Your task to perform on an android device: set an alarm Image 0: 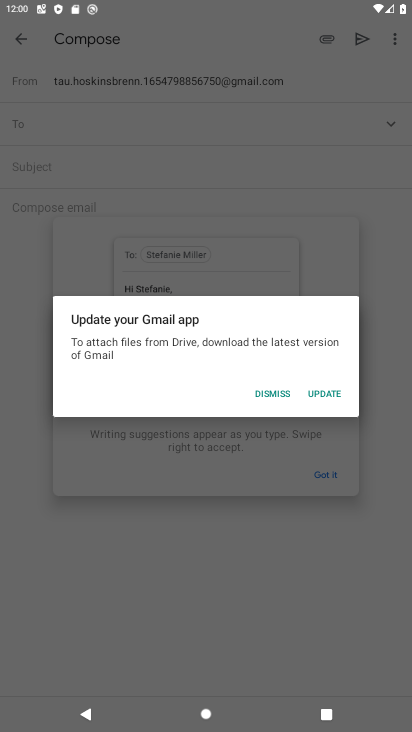
Step 0: press home button
Your task to perform on an android device: set an alarm Image 1: 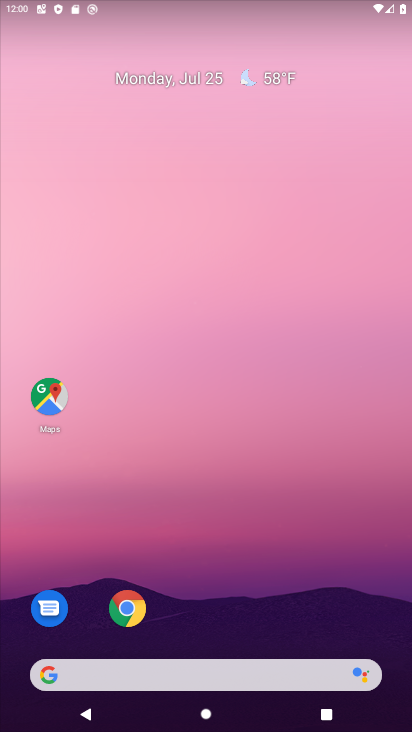
Step 1: drag from (206, 691) to (171, 276)
Your task to perform on an android device: set an alarm Image 2: 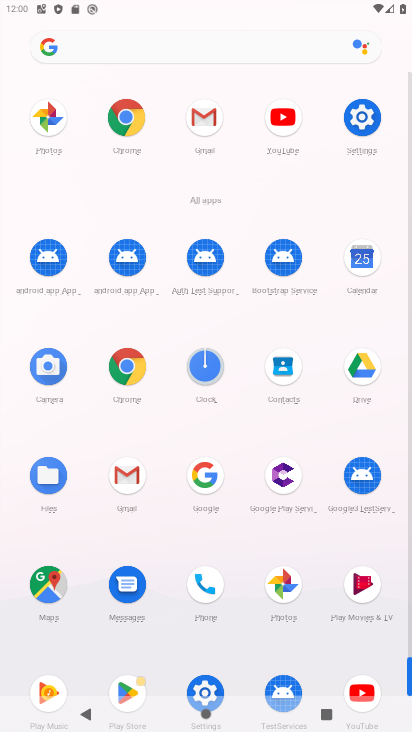
Step 2: click (215, 364)
Your task to perform on an android device: set an alarm Image 3: 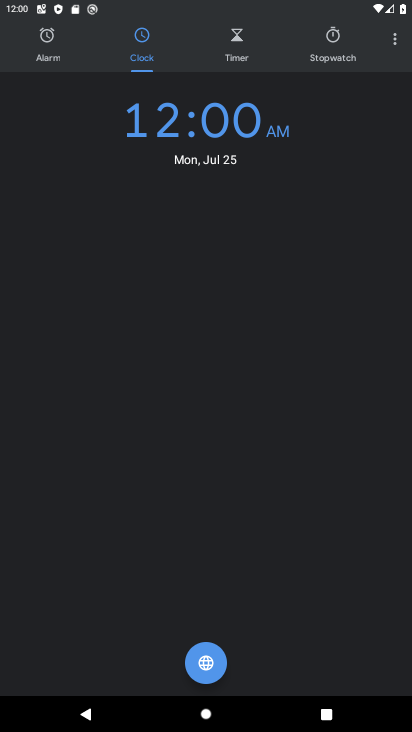
Step 3: click (60, 65)
Your task to perform on an android device: set an alarm Image 4: 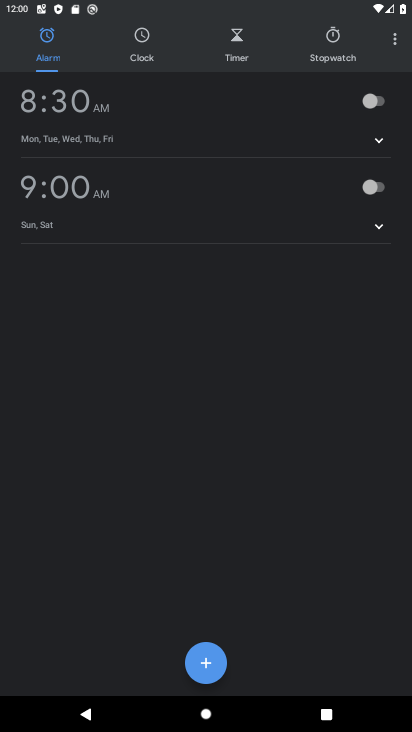
Step 4: click (204, 652)
Your task to perform on an android device: set an alarm Image 5: 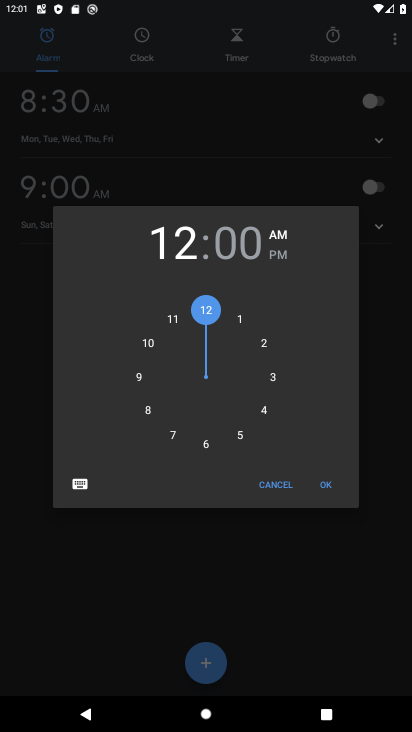
Step 5: click (200, 454)
Your task to perform on an android device: set an alarm Image 6: 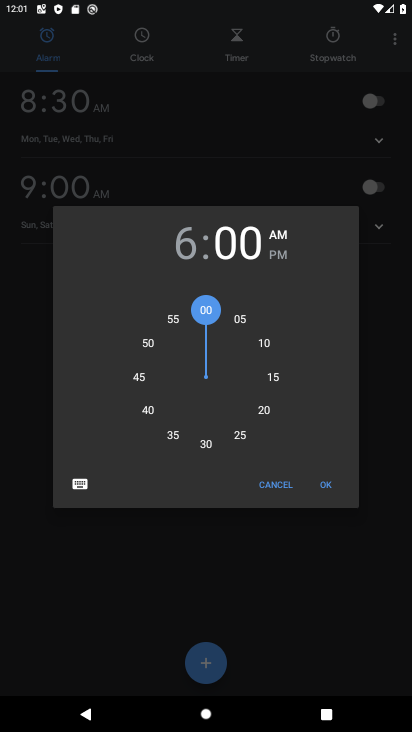
Step 6: click (331, 497)
Your task to perform on an android device: set an alarm Image 7: 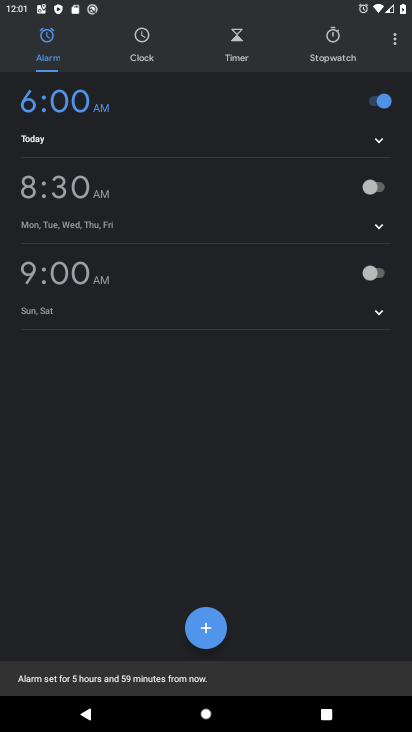
Step 7: task complete